Your task to perform on an android device: Do I have any events this weekend? Image 0: 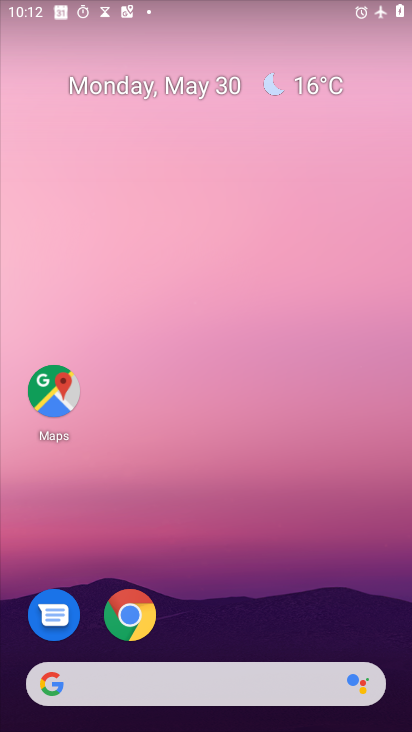
Step 0: drag from (263, 560) to (192, 91)
Your task to perform on an android device: Do I have any events this weekend? Image 1: 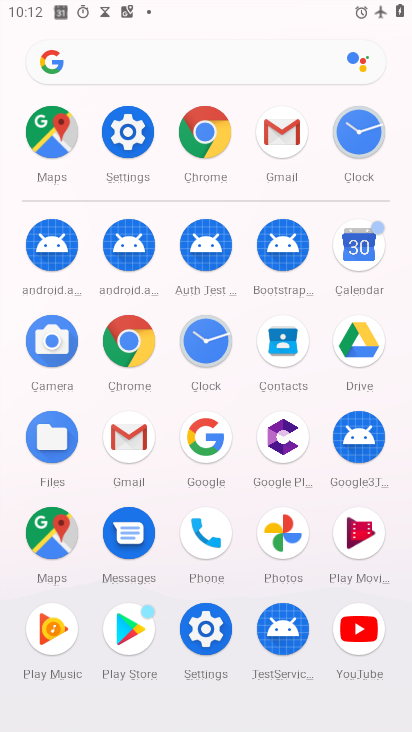
Step 1: click (352, 258)
Your task to perform on an android device: Do I have any events this weekend? Image 2: 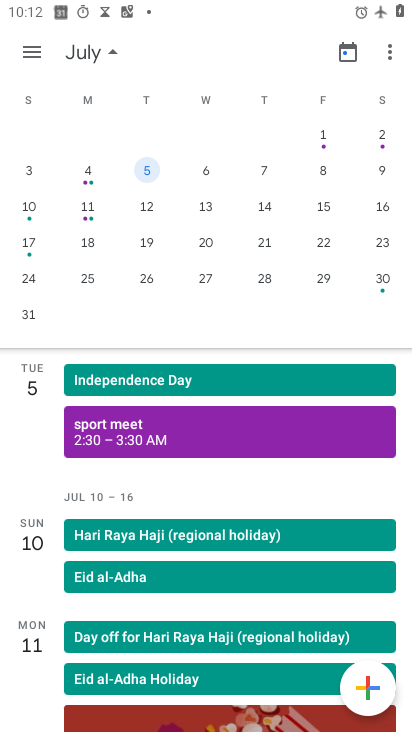
Step 2: click (24, 210)
Your task to perform on an android device: Do I have any events this weekend? Image 3: 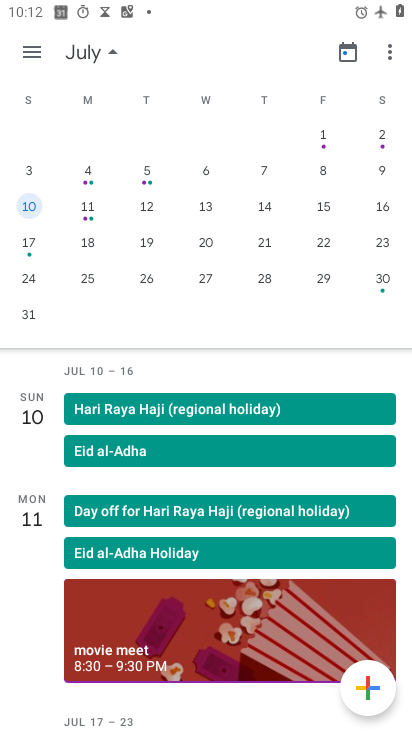
Step 3: task complete